Your task to perform on an android device: Check the news Image 0: 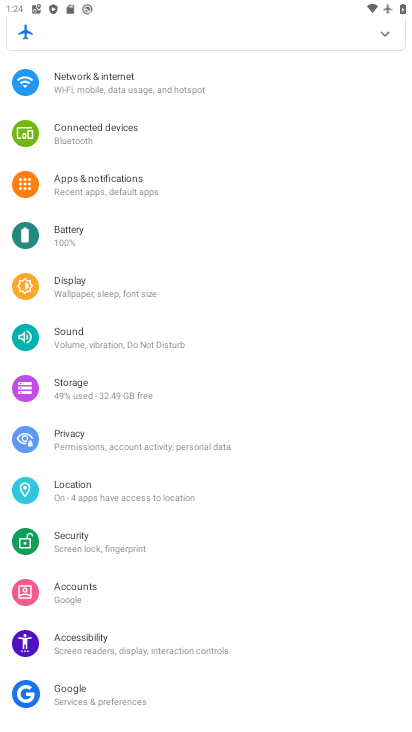
Step 0: press home button
Your task to perform on an android device: Check the news Image 1: 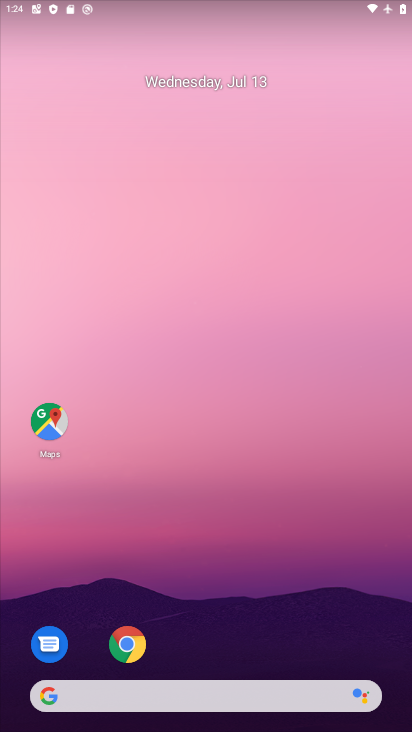
Step 1: drag from (316, 603) to (258, 67)
Your task to perform on an android device: Check the news Image 2: 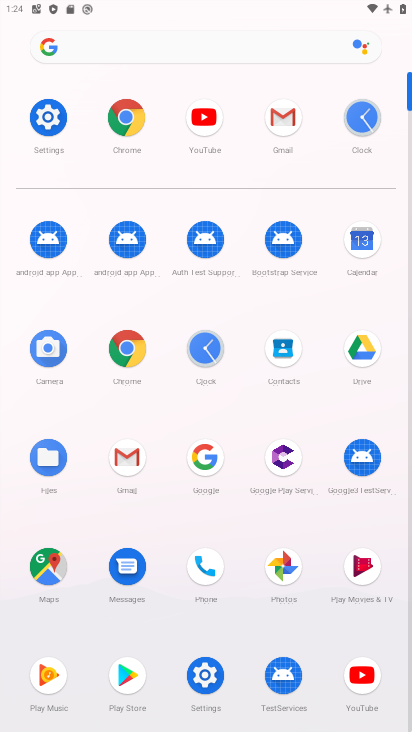
Step 2: click (128, 117)
Your task to perform on an android device: Check the news Image 3: 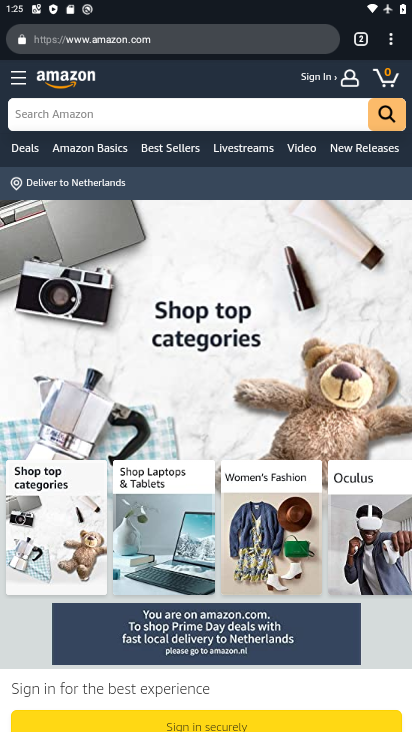
Step 3: click (261, 39)
Your task to perform on an android device: Check the news Image 4: 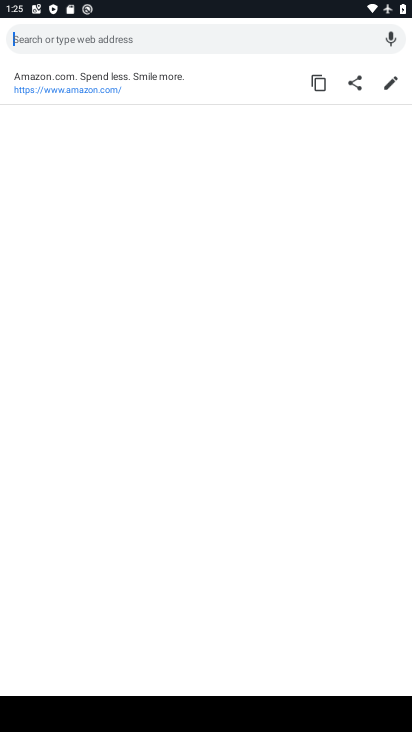
Step 4: type "news"
Your task to perform on an android device: Check the news Image 5: 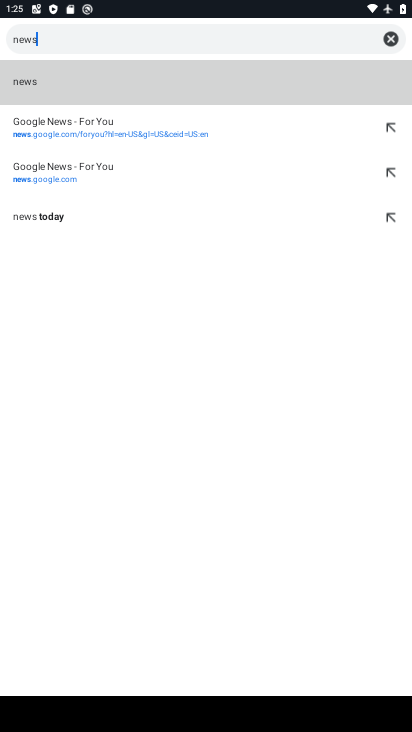
Step 5: click (62, 80)
Your task to perform on an android device: Check the news Image 6: 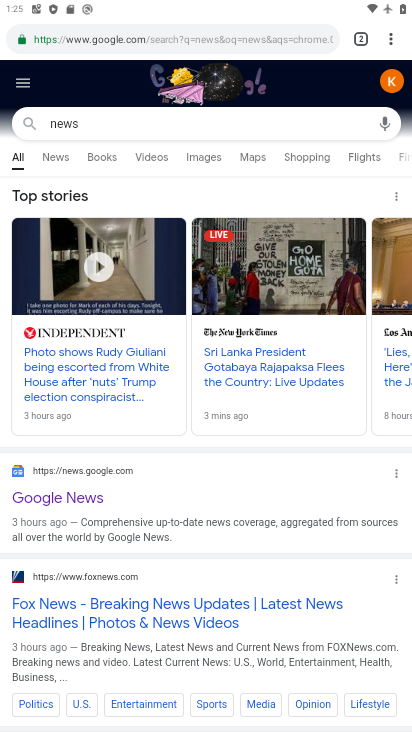
Step 6: click (82, 500)
Your task to perform on an android device: Check the news Image 7: 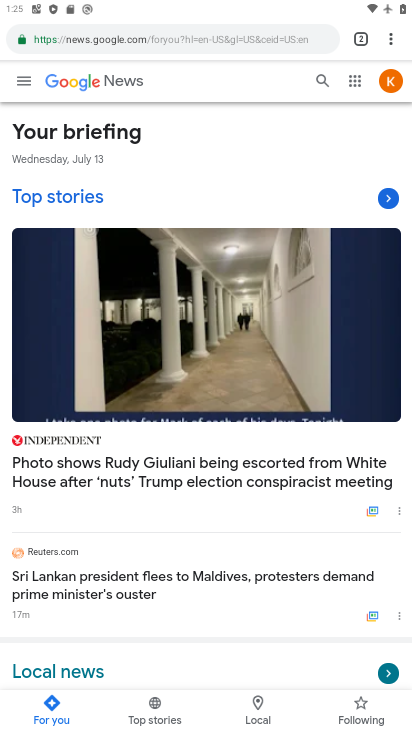
Step 7: task complete